Your task to perform on an android device: Open Reddit.com Image 0: 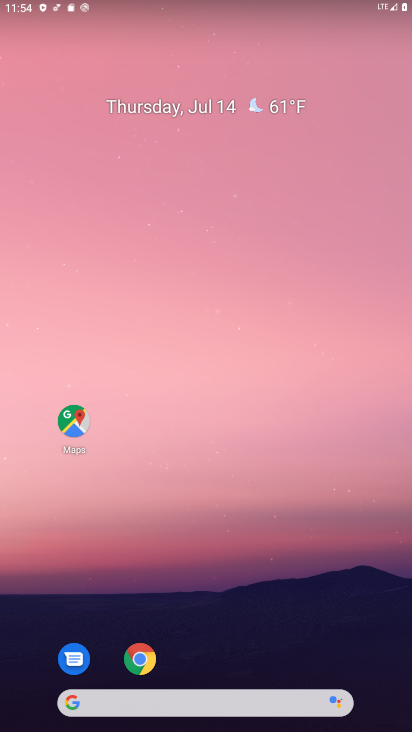
Step 0: click (141, 659)
Your task to perform on an android device: Open Reddit.com Image 1: 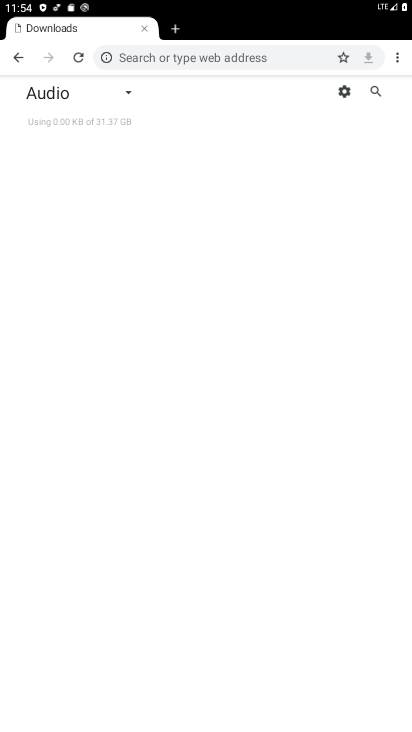
Step 1: click (280, 61)
Your task to perform on an android device: Open Reddit.com Image 2: 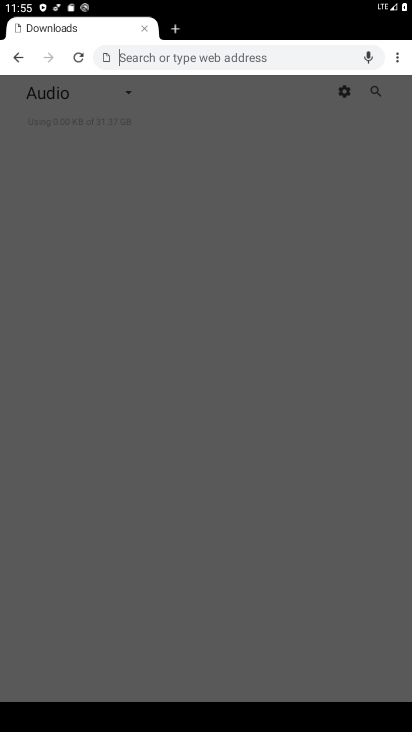
Step 2: type "Reddit.com"
Your task to perform on an android device: Open Reddit.com Image 3: 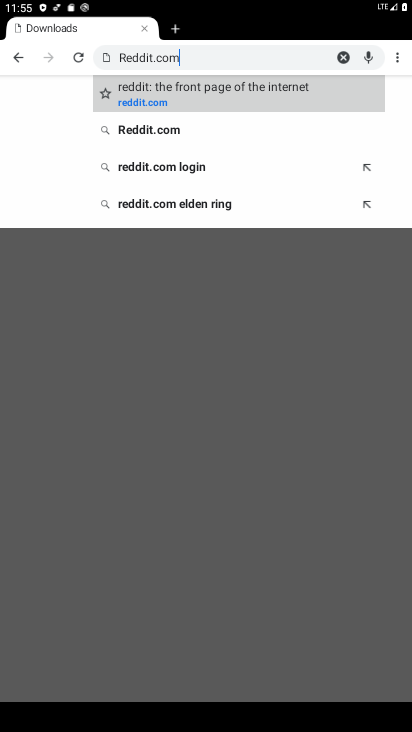
Step 3: click (164, 131)
Your task to perform on an android device: Open Reddit.com Image 4: 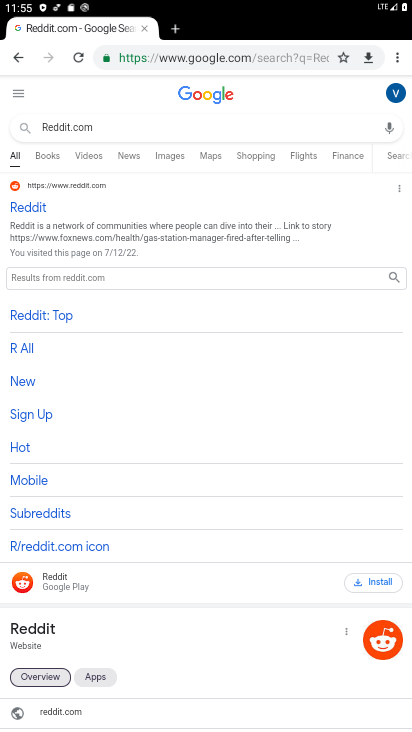
Step 4: click (42, 210)
Your task to perform on an android device: Open Reddit.com Image 5: 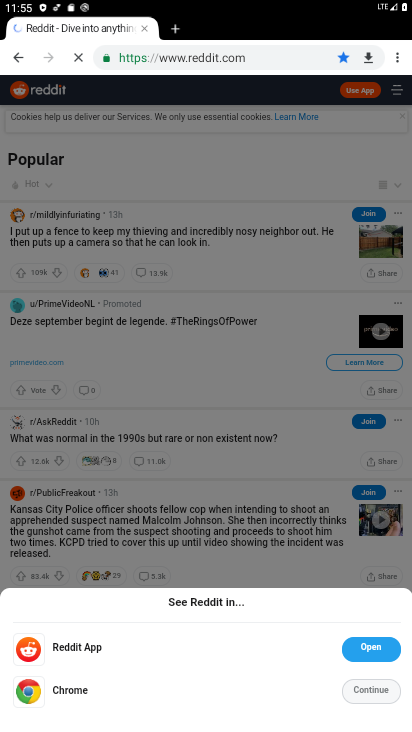
Step 5: click (375, 692)
Your task to perform on an android device: Open Reddit.com Image 6: 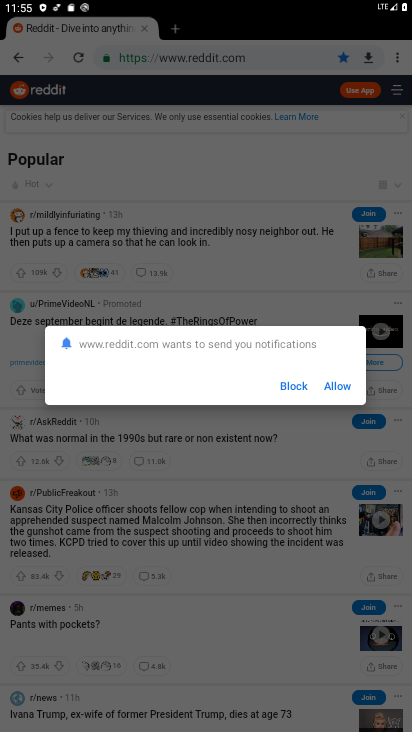
Step 6: click (334, 387)
Your task to perform on an android device: Open Reddit.com Image 7: 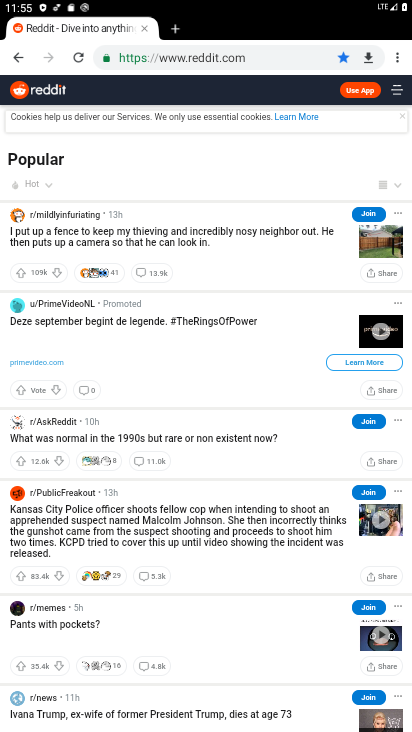
Step 7: task complete